Your task to perform on an android device: Open my contact list Image 0: 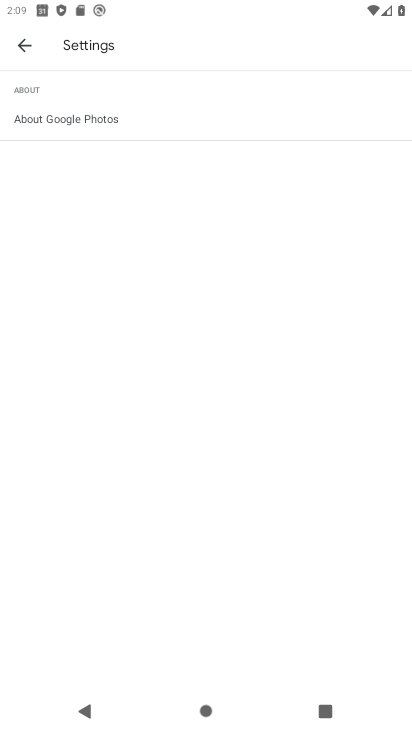
Step 0: press home button
Your task to perform on an android device: Open my contact list Image 1: 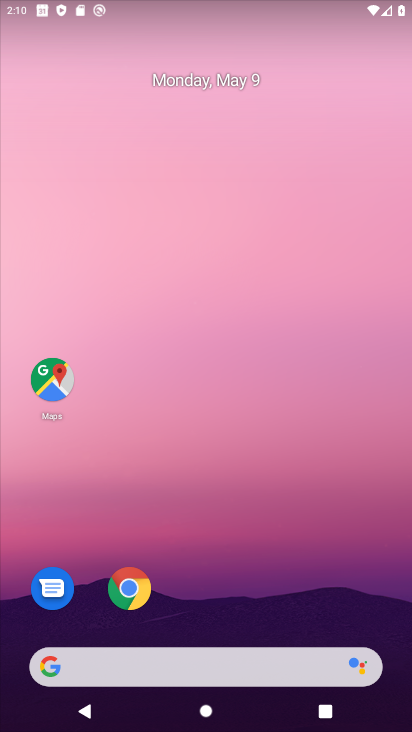
Step 1: drag from (301, 605) to (217, 81)
Your task to perform on an android device: Open my contact list Image 2: 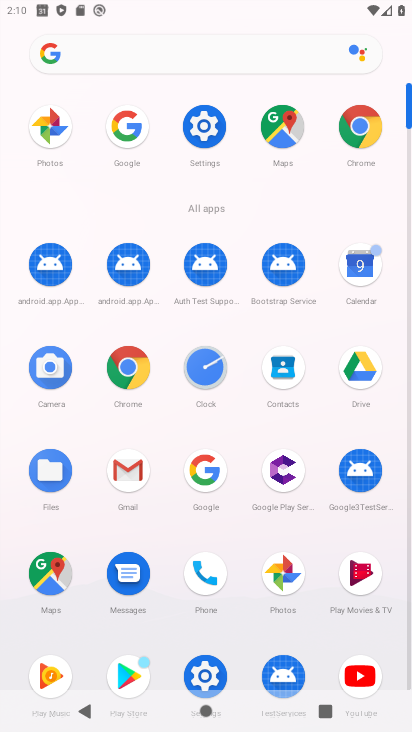
Step 2: click (289, 378)
Your task to perform on an android device: Open my contact list Image 3: 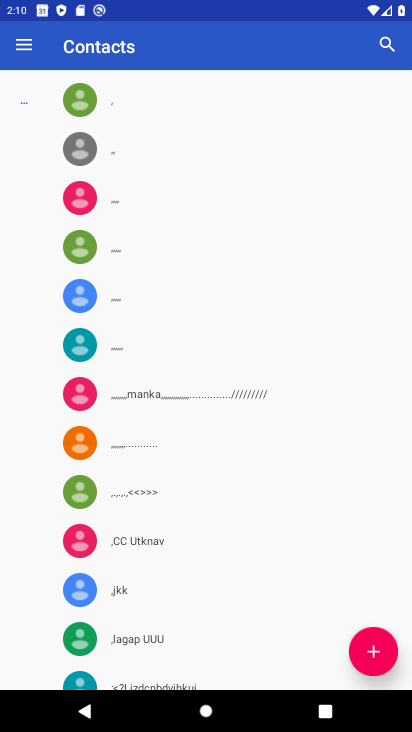
Step 3: task complete